Your task to perform on an android device: Search for Italian restaurants on Maps Image 0: 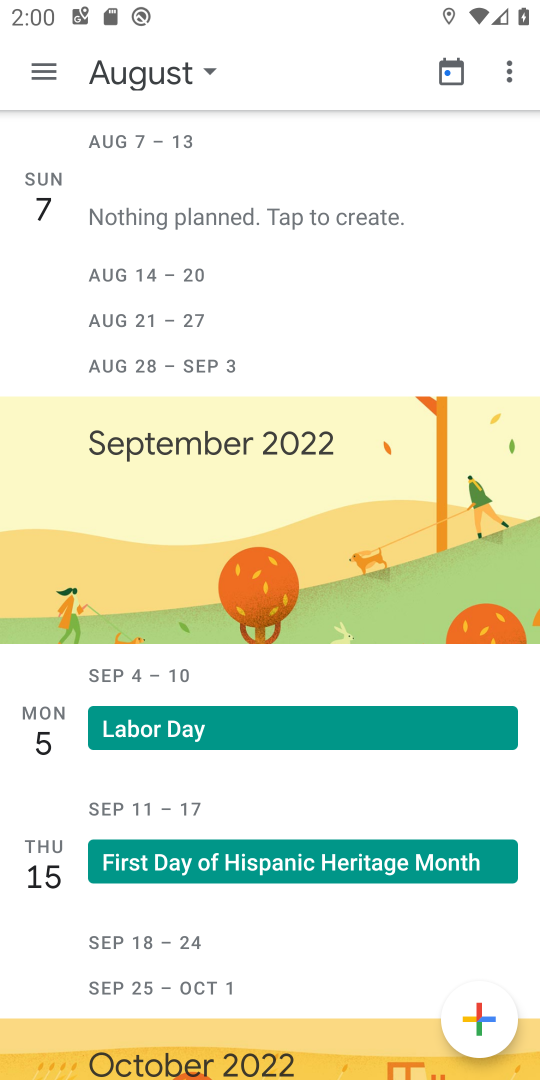
Step 0: press home button
Your task to perform on an android device: Search for Italian restaurants on Maps Image 1: 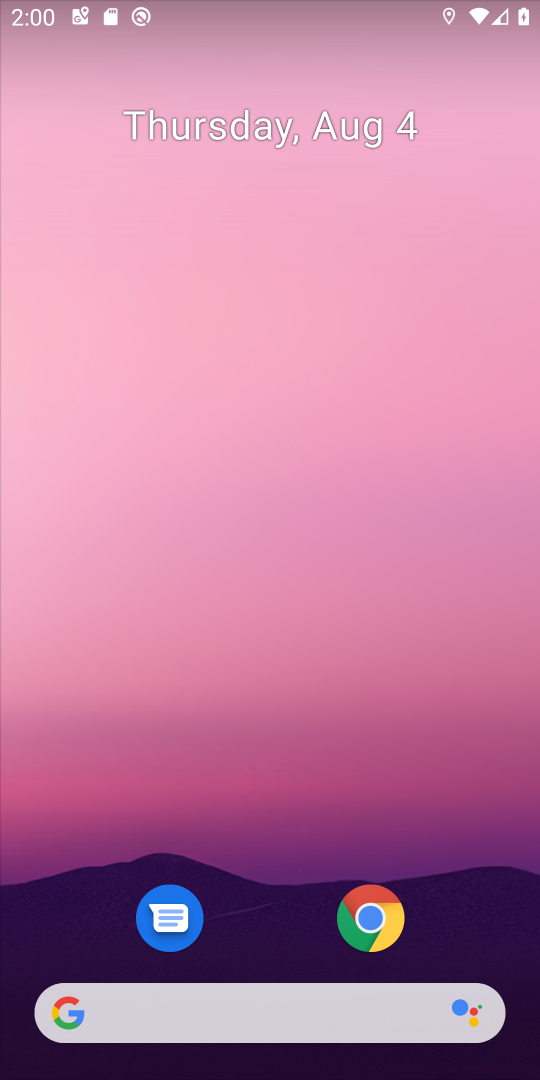
Step 1: drag from (320, 807) to (288, 216)
Your task to perform on an android device: Search for Italian restaurants on Maps Image 2: 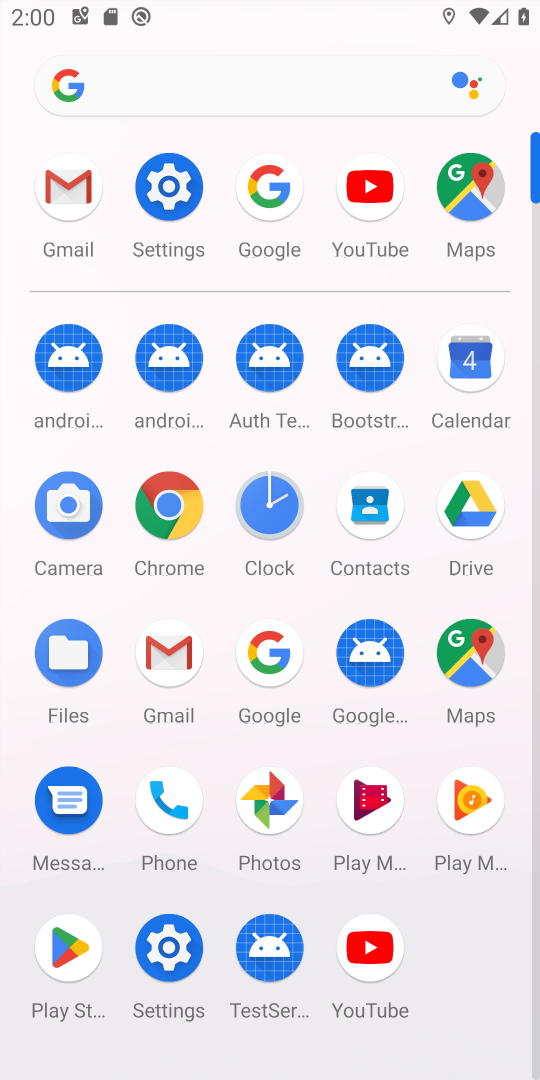
Step 2: click (457, 642)
Your task to perform on an android device: Search for Italian restaurants on Maps Image 3: 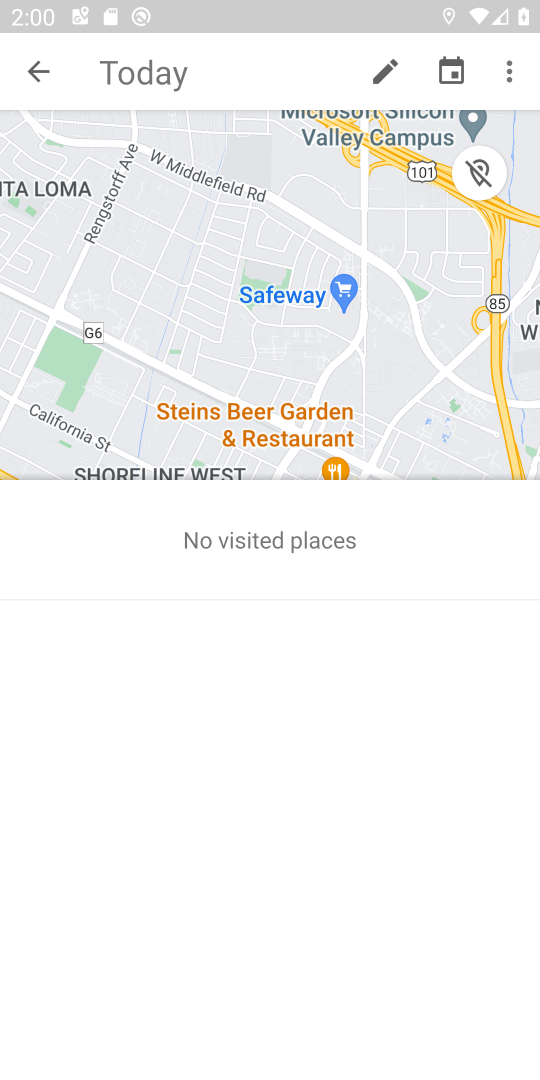
Step 3: click (38, 65)
Your task to perform on an android device: Search for Italian restaurants on Maps Image 4: 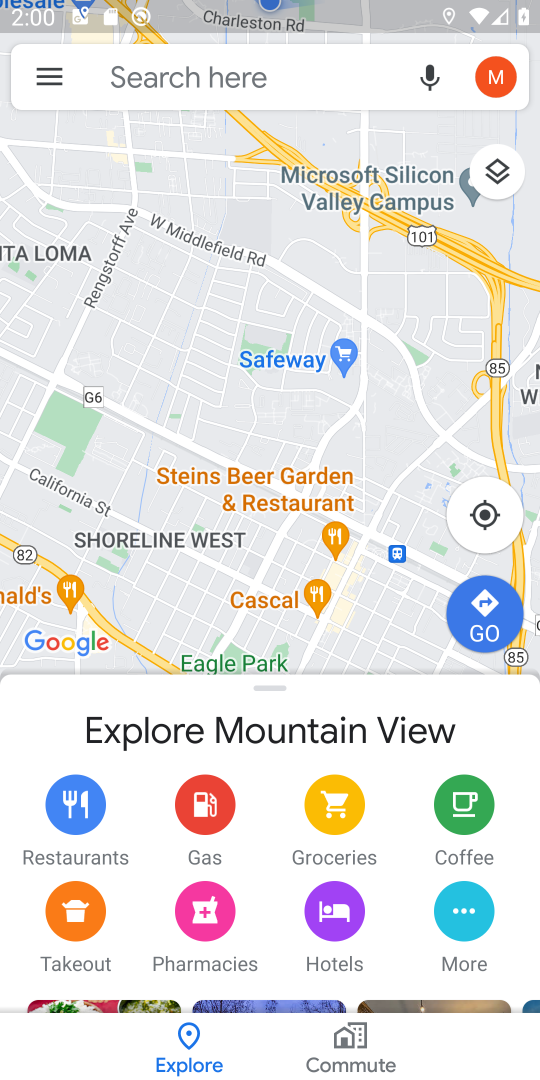
Step 4: click (202, 76)
Your task to perform on an android device: Search for Italian restaurants on Maps Image 5: 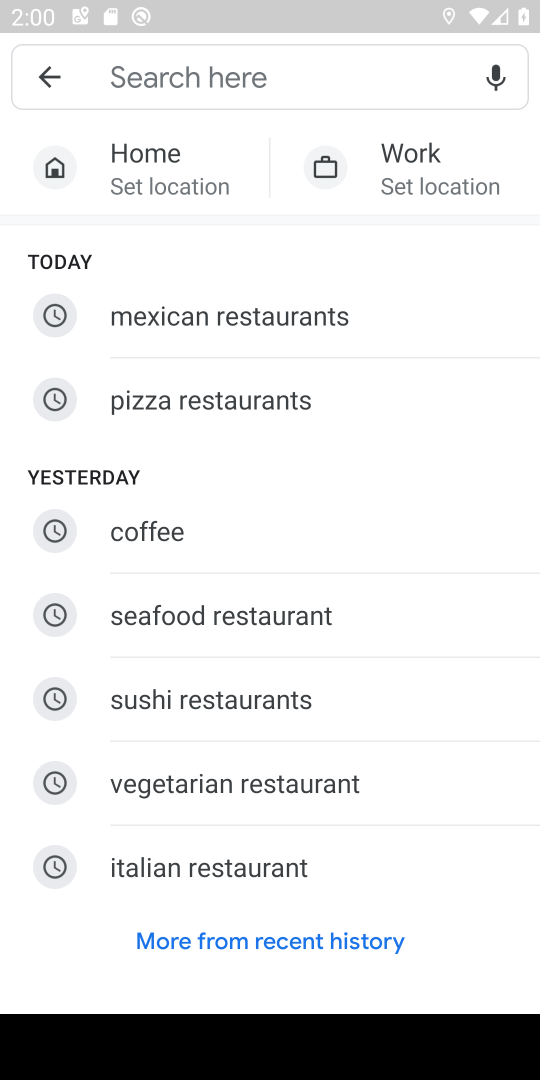
Step 5: click (211, 863)
Your task to perform on an android device: Search for Italian restaurants on Maps Image 6: 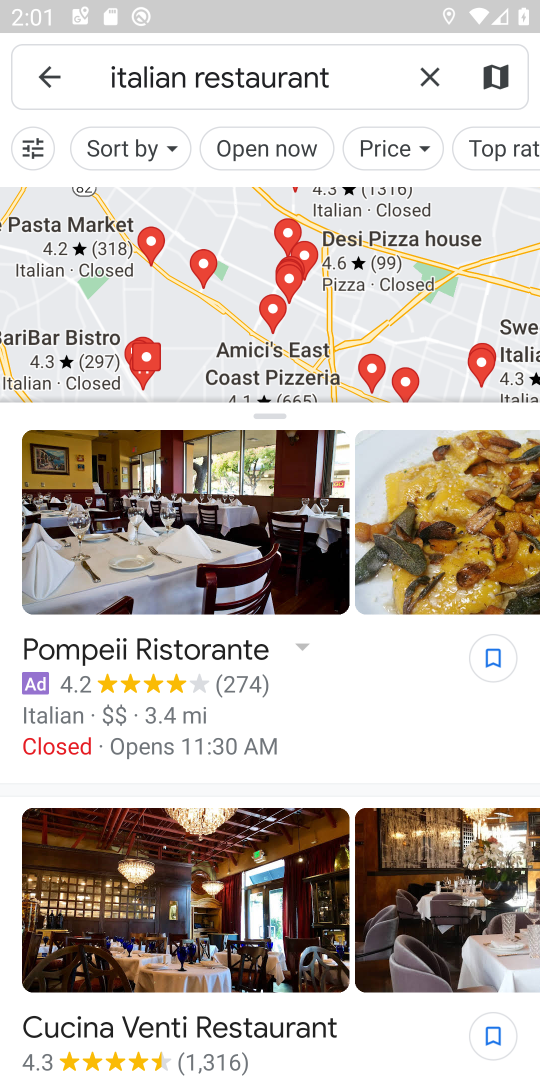
Step 6: task complete